Your task to perform on an android device: set the timer Image 0: 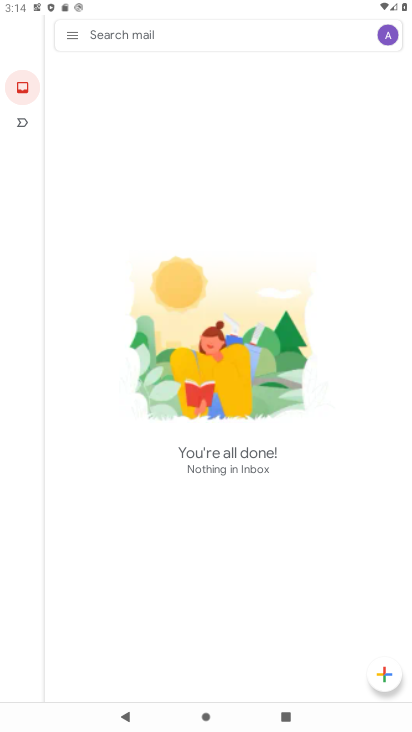
Step 0: press home button
Your task to perform on an android device: set the timer Image 1: 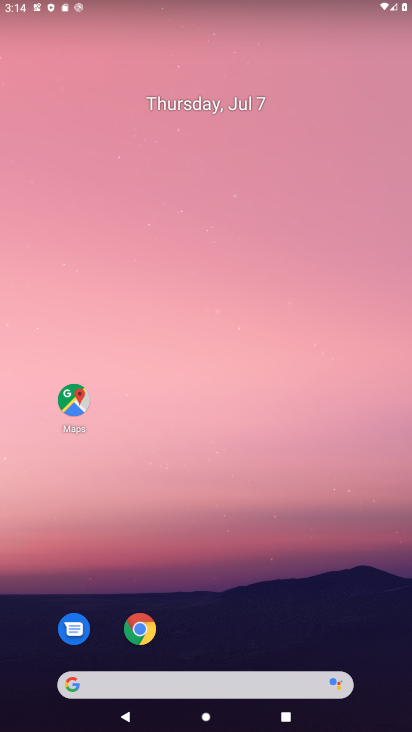
Step 1: drag from (269, 600) to (335, 82)
Your task to perform on an android device: set the timer Image 2: 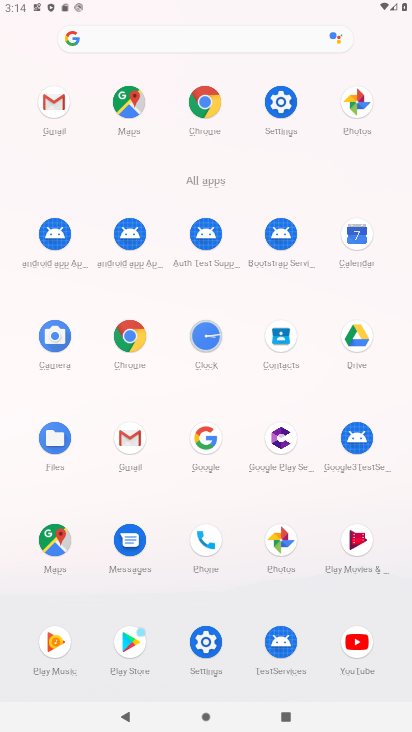
Step 2: click (203, 337)
Your task to perform on an android device: set the timer Image 3: 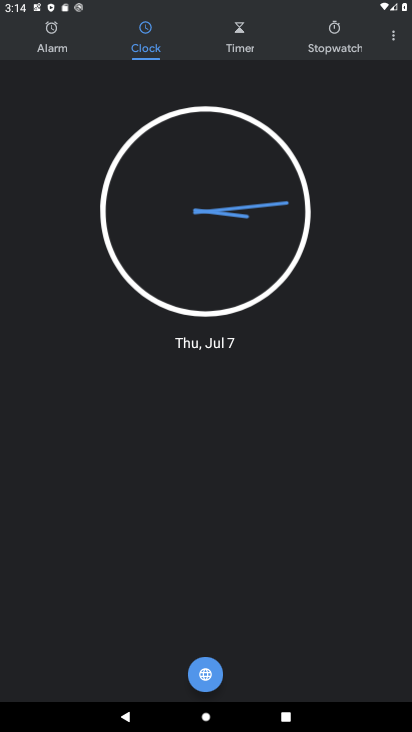
Step 3: click (230, 36)
Your task to perform on an android device: set the timer Image 4: 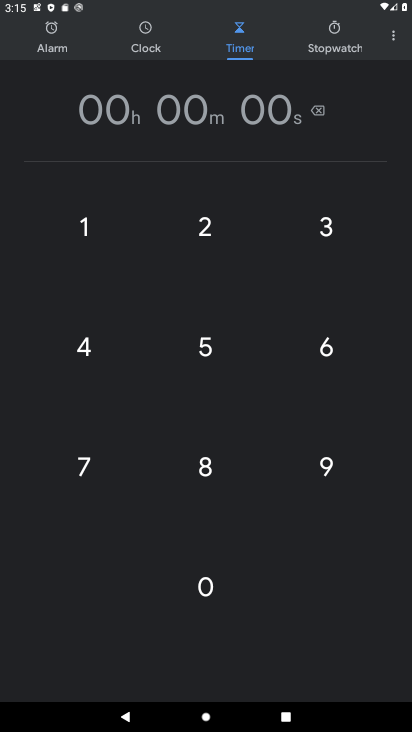
Step 4: task complete